Your task to perform on an android device: turn on location history Image 0: 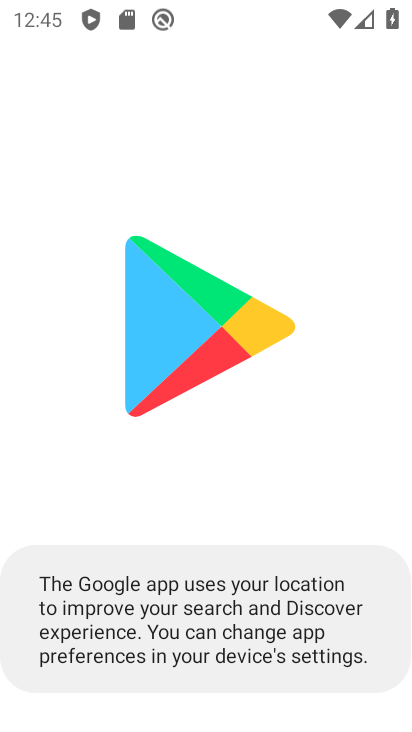
Step 0: drag from (339, 563) to (346, 132)
Your task to perform on an android device: turn on location history Image 1: 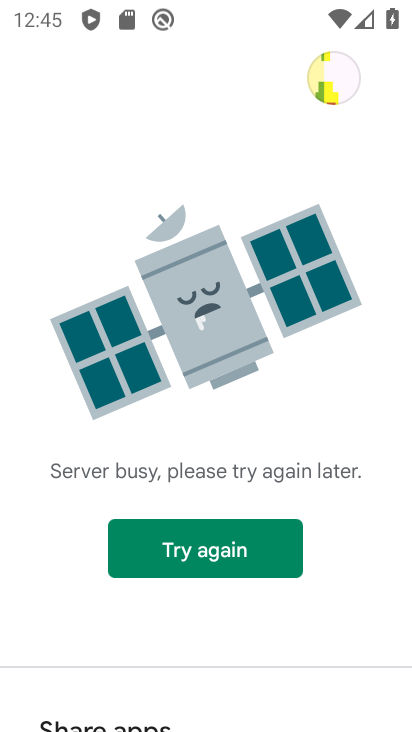
Step 1: press home button
Your task to perform on an android device: turn on location history Image 2: 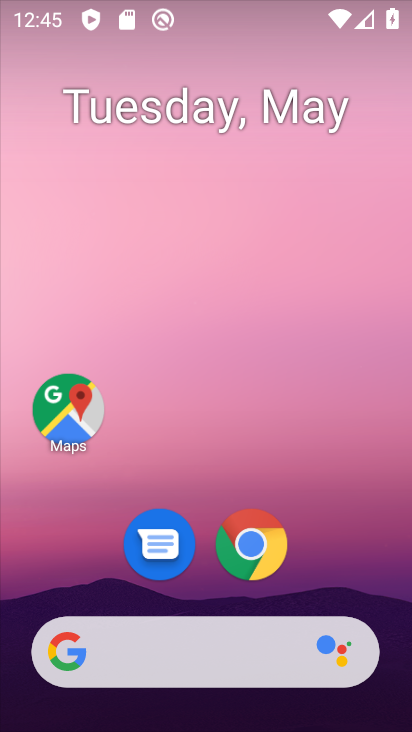
Step 2: drag from (374, 559) to (341, 55)
Your task to perform on an android device: turn on location history Image 3: 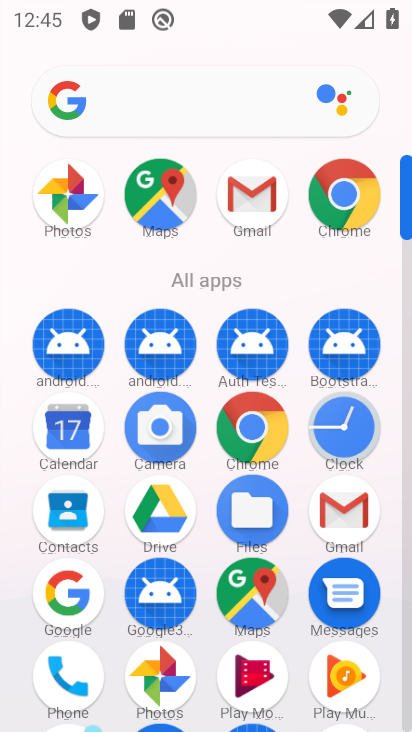
Step 3: drag from (170, 596) to (250, 206)
Your task to perform on an android device: turn on location history Image 4: 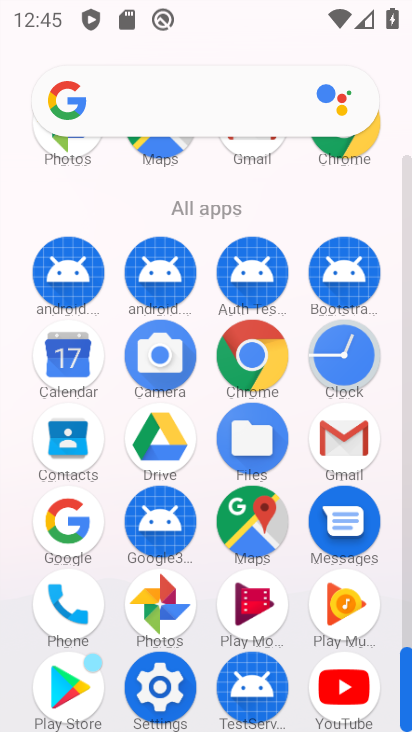
Step 4: click (162, 671)
Your task to perform on an android device: turn on location history Image 5: 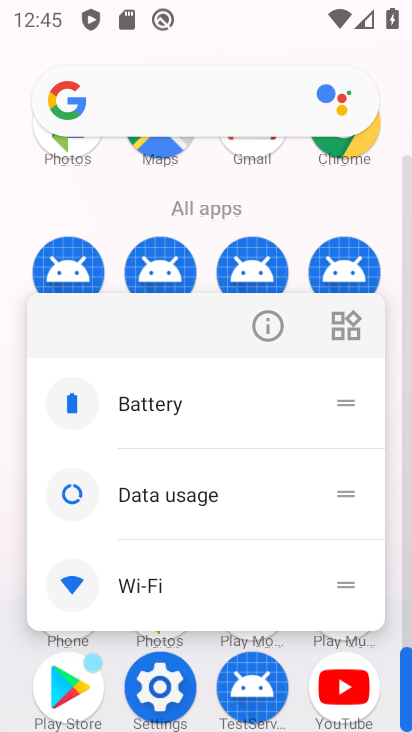
Step 5: click (162, 673)
Your task to perform on an android device: turn on location history Image 6: 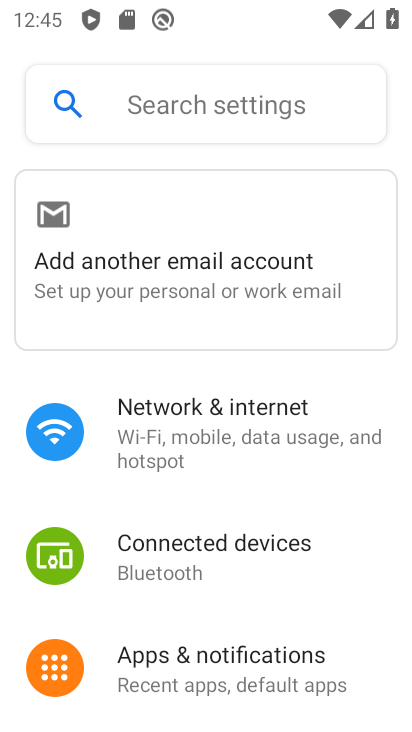
Step 6: drag from (364, 677) to (375, 299)
Your task to perform on an android device: turn on location history Image 7: 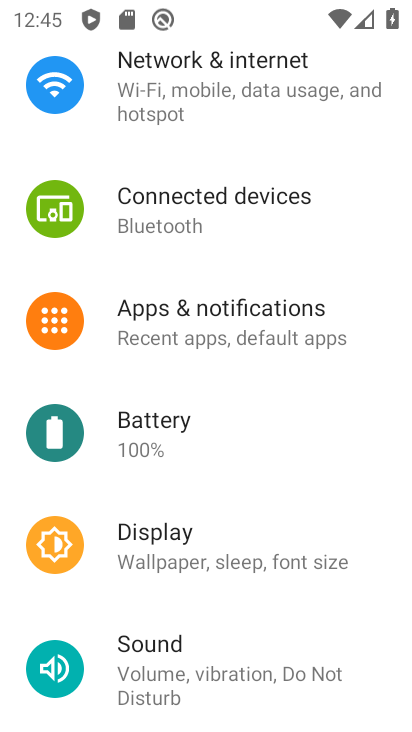
Step 7: drag from (230, 625) to (276, 258)
Your task to perform on an android device: turn on location history Image 8: 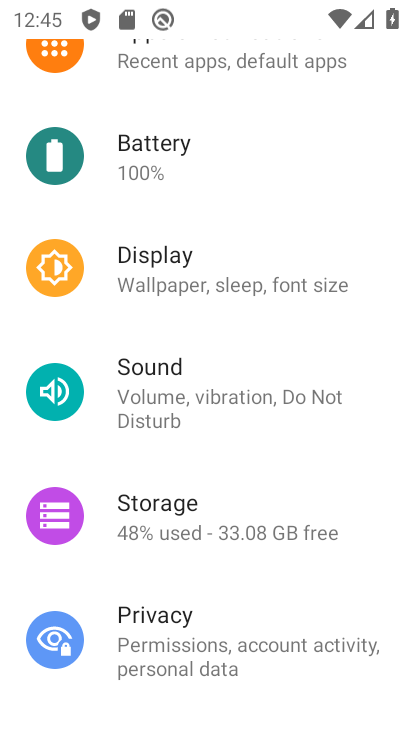
Step 8: drag from (204, 569) to (233, 219)
Your task to perform on an android device: turn on location history Image 9: 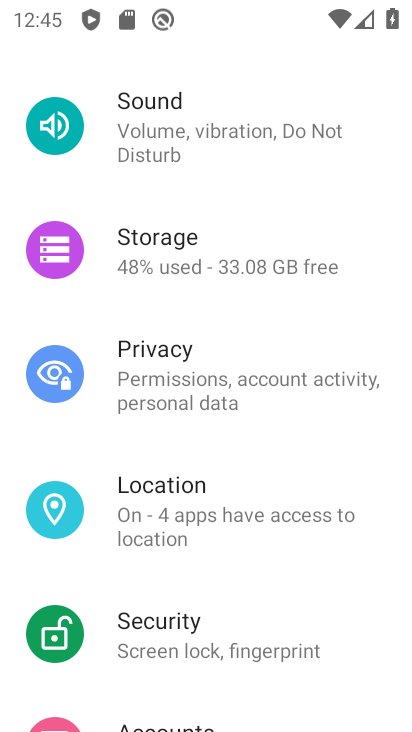
Step 9: click (220, 493)
Your task to perform on an android device: turn on location history Image 10: 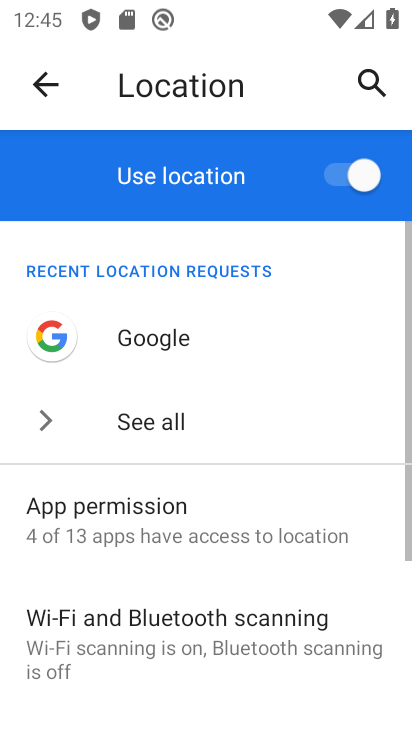
Step 10: drag from (291, 647) to (331, 351)
Your task to perform on an android device: turn on location history Image 11: 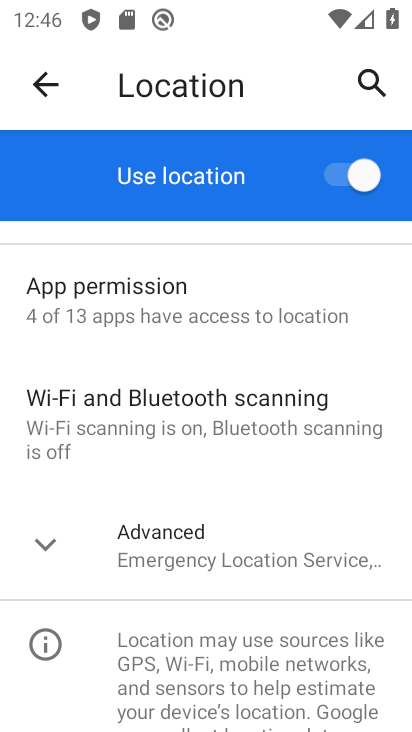
Step 11: click (313, 557)
Your task to perform on an android device: turn on location history Image 12: 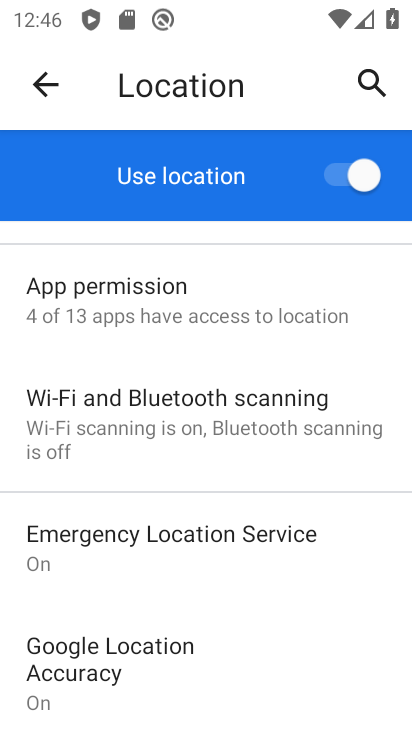
Step 12: drag from (291, 642) to (301, 310)
Your task to perform on an android device: turn on location history Image 13: 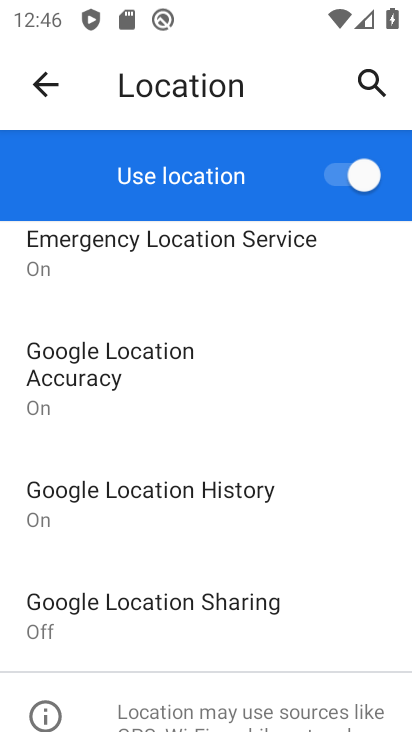
Step 13: click (272, 513)
Your task to perform on an android device: turn on location history Image 14: 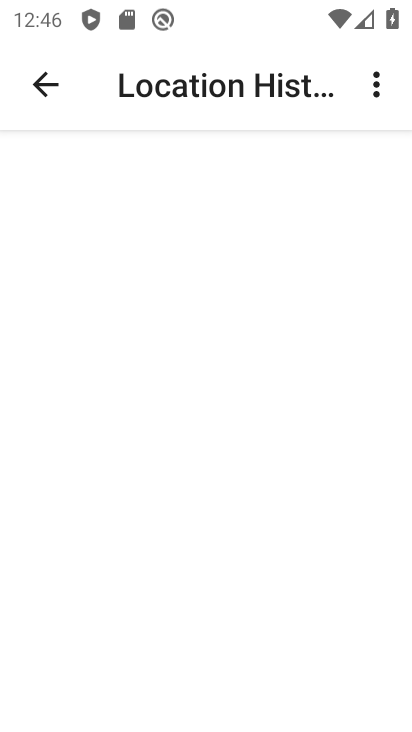
Step 14: task complete